Your task to perform on an android device: Empty the shopping cart on costco. Image 0: 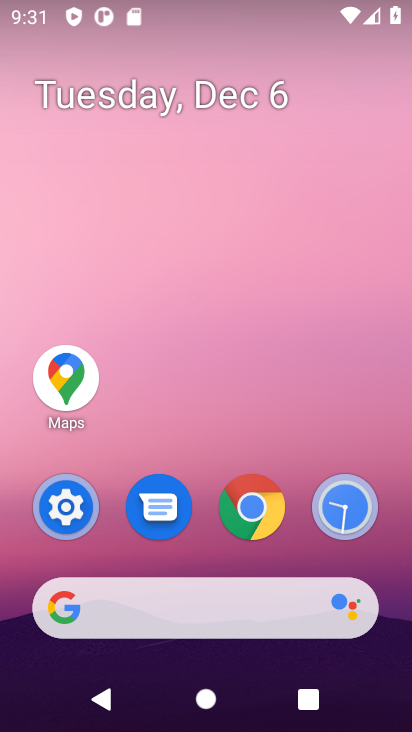
Step 0: press home button
Your task to perform on an android device: Empty the shopping cart on costco. Image 1: 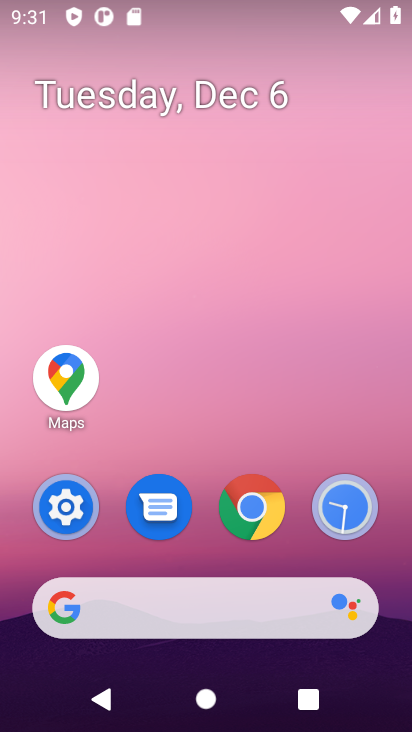
Step 1: click (101, 617)
Your task to perform on an android device: Empty the shopping cart on costco. Image 2: 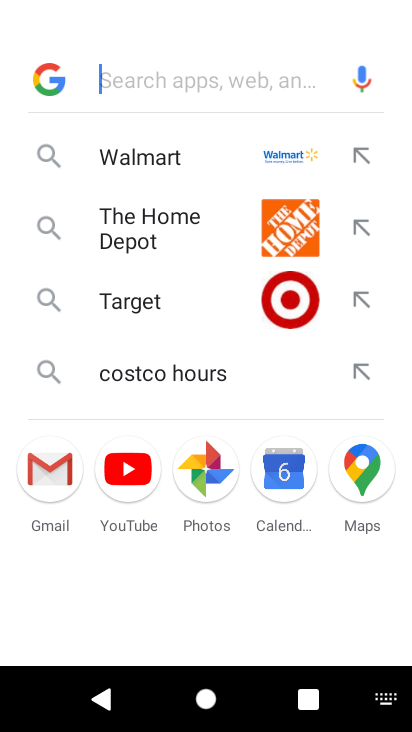
Step 2: type "costco"
Your task to perform on an android device: Empty the shopping cart on costco. Image 3: 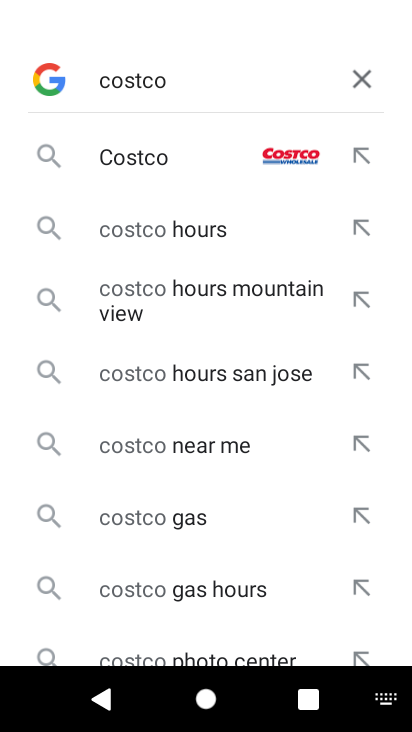
Step 3: press enter
Your task to perform on an android device: Empty the shopping cart on costco. Image 4: 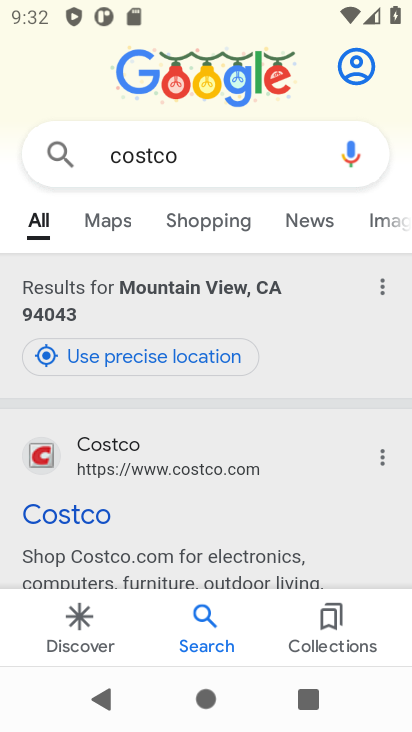
Step 4: drag from (274, 485) to (272, 198)
Your task to perform on an android device: Empty the shopping cart on costco. Image 5: 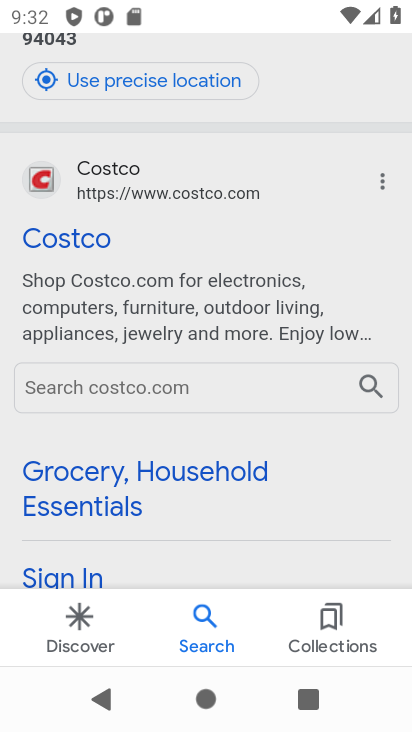
Step 5: click (77, 240)
Your task to perform on an android device: Empty the shopping cart on costco. Image 6: 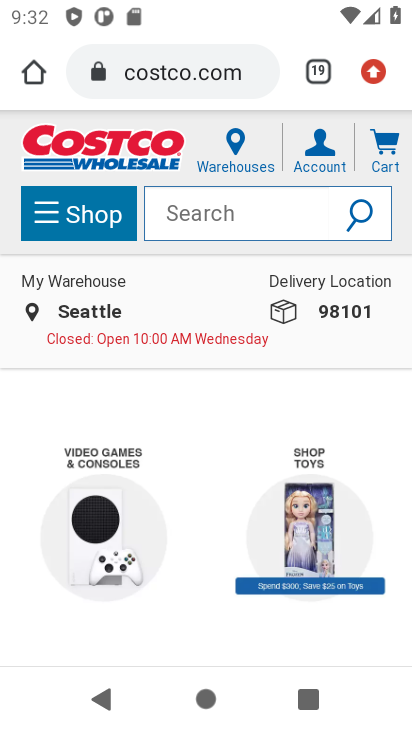
Step 6: click (387, 150)
Your task to perform on an android device: Empty the shopping cart on costco. Image 7: 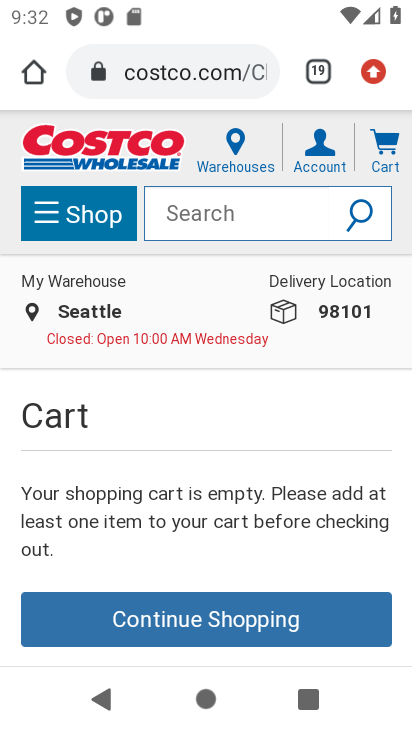
Step 7: task complete